Your task to perform on an android device: Show me recent news Image 0: 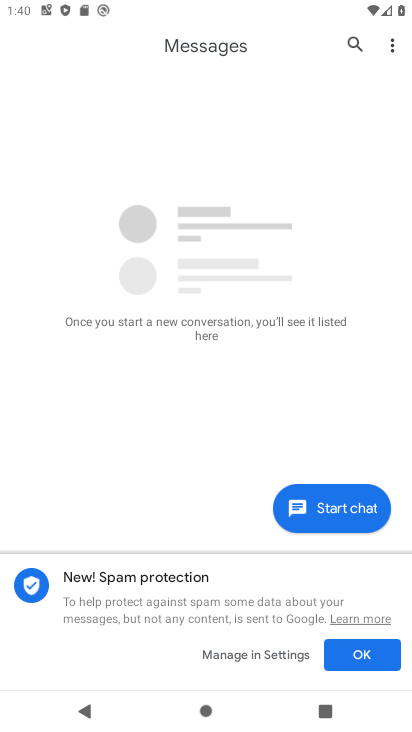
Step 0: press home button
Your task to perform on an android device: Show me recent news Image 1: 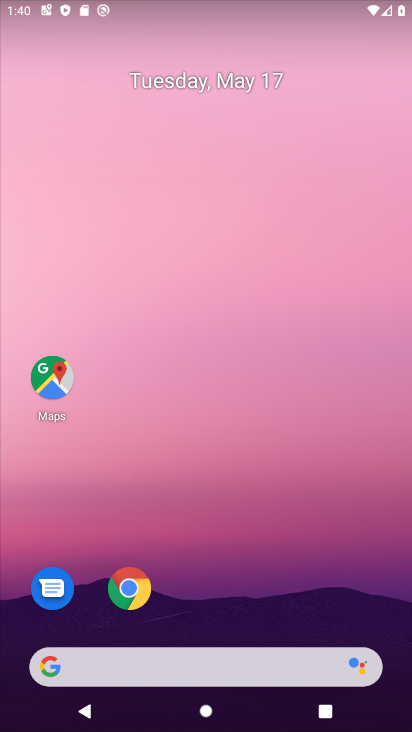
Step 1: click (126, 602)
Your task to perform on an android device: Show me recent news Image 2: 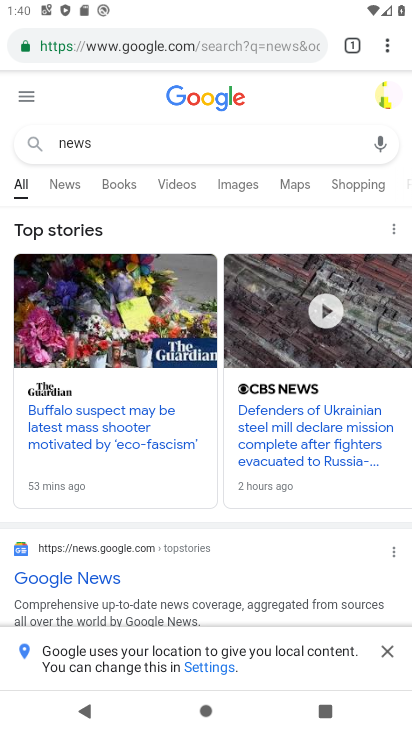
Step 2: task complete